Your task to perform on an android device: clear all cookies in the chrome app Image 0: 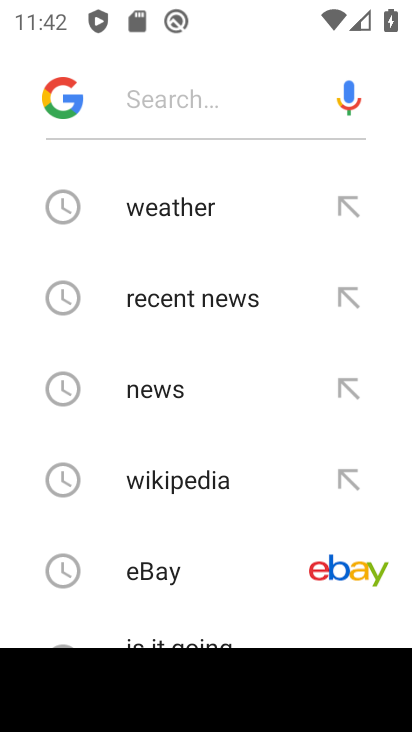
Step 0: press home button
Your task to perform on an android device: clear all cookies in the chrome app Image 1: 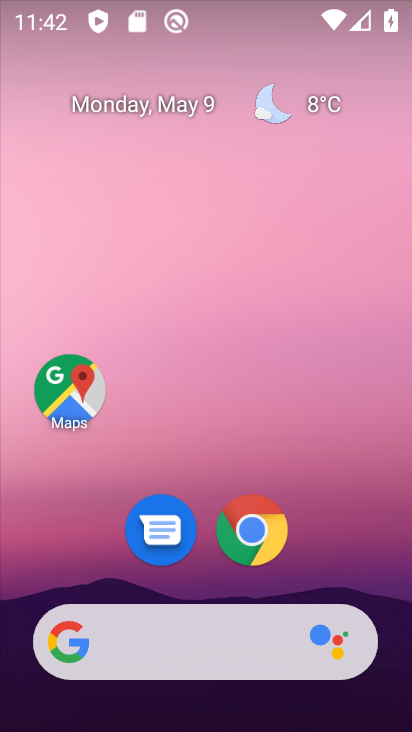
Step 1: drag from (354, 508) to (339, 251)
Your task to perform on an android device: clear all cookies in the chrome app Image 2: 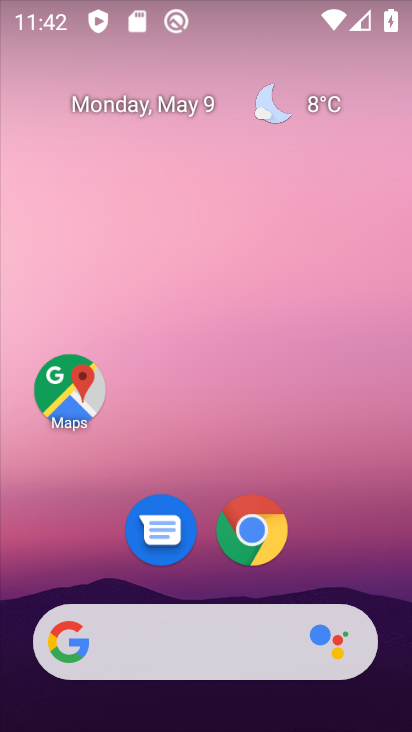
Step 2: drag from (339, 514) to (329, 202)
Your task to perform on an android device: clear all cookies in the chrome app Image 3: 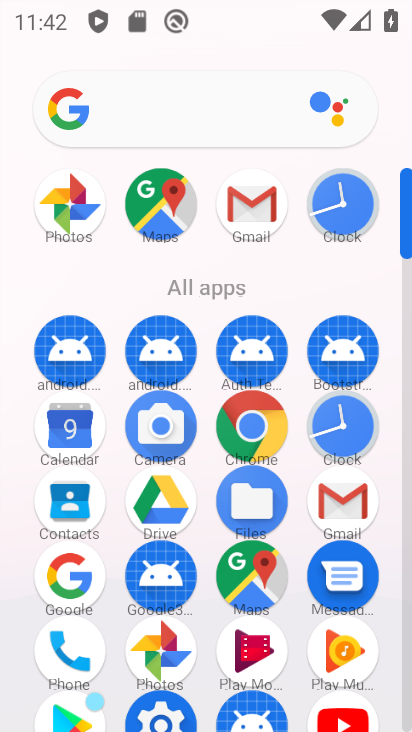
Step 3: click (245, 432)
Your task to perform on an android device: clear all cookies in the chrome app Image 4: 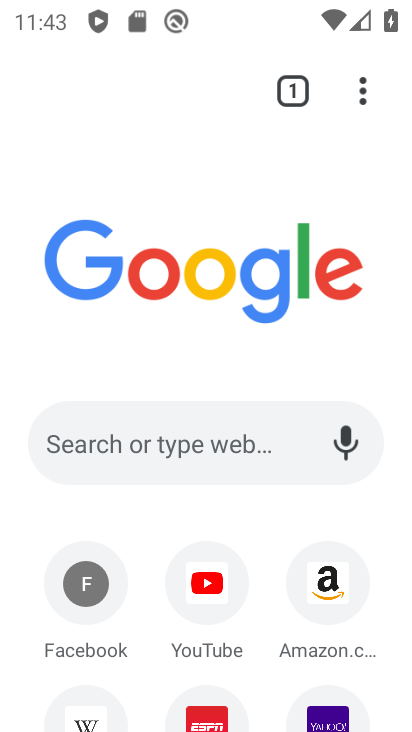
Step 4: task complete